Your task to perform on an android device: change notification settings in the gmail app Image 0: 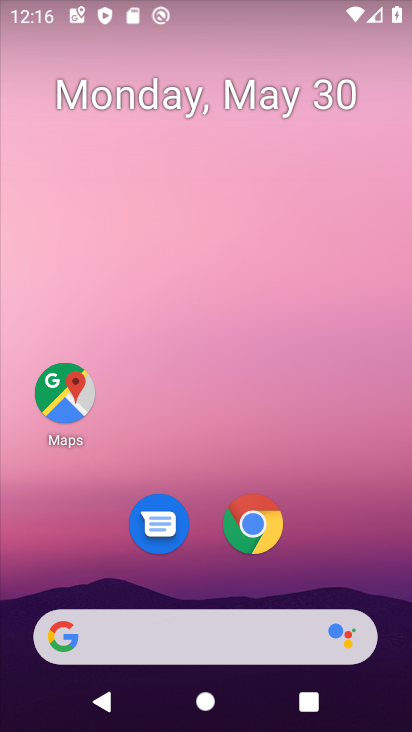
Step 0: drag from (264, 436) to (273, 0)
Your task to perform on an android device: change notification settings in the gmail app Image 1: 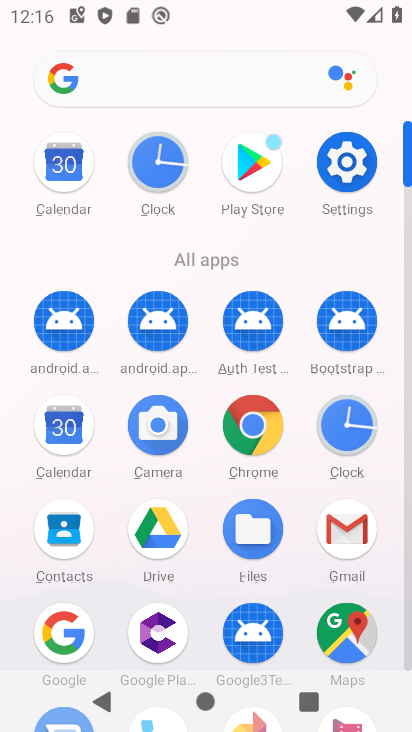
Step 1: click (359, 159)
Your task to perform on an android device: change notification settings in the gmail app Image 2: 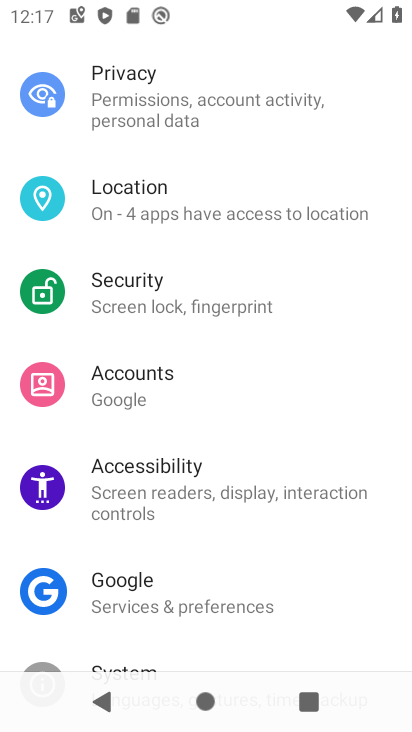
Step 2: drag from (194, 225) to (174, 651)
Your task to perform on an android device: change notification settings in the gmail app Image 3: 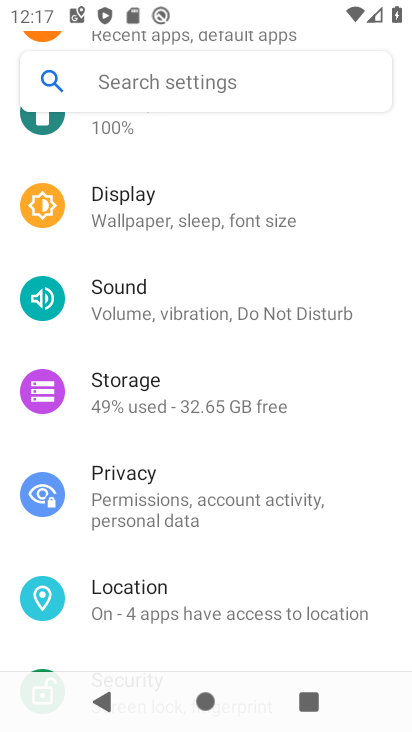
Step 3: drag from (193, 216) to (172, 612)
Your task to perform on an android device: change notification settings in the gmail app Image 4: 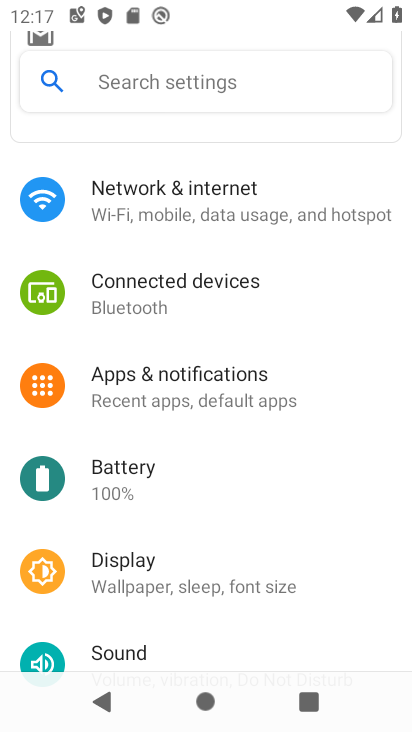
Step 4: click (192, 392)
Your task to perform on an android device: change notification settings in the gmail app Image 5: 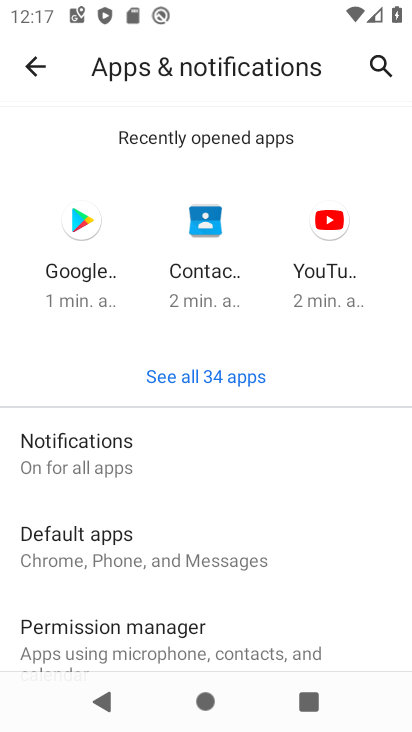
Step 5: click (213, 368)
Your task to perform on an android device: change notification settings in the gmail app Image 6: 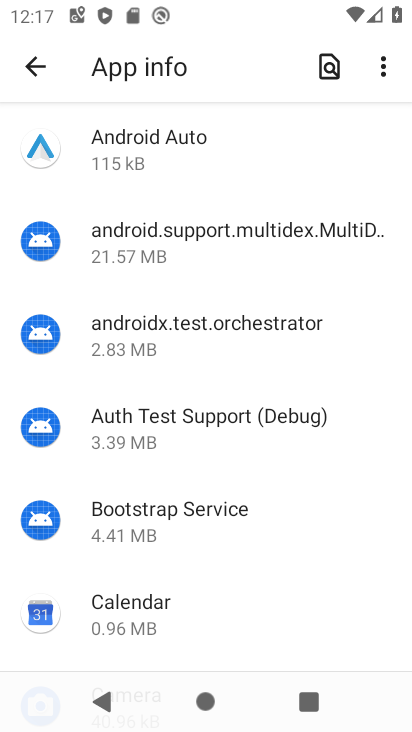
Step 6: drag from (203, 599) to (249, 11)
Your task to perform on an android device: change notification settings in the gmail app Image 7: 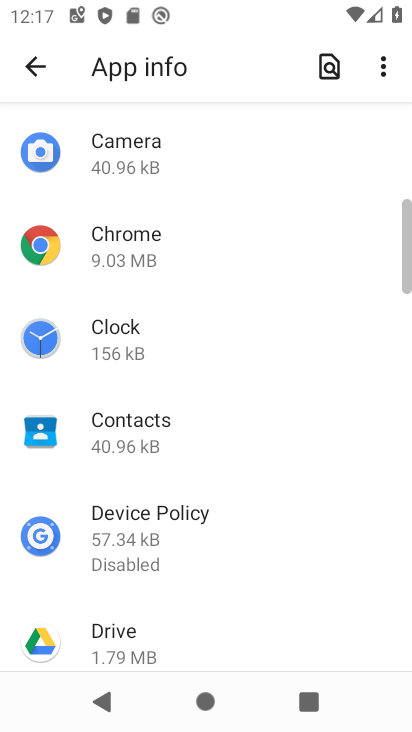
Step 7: drag from (237, 600) to (280, 46)
Your task to perform on an android device: change notification settings in the gmail app Image 8: 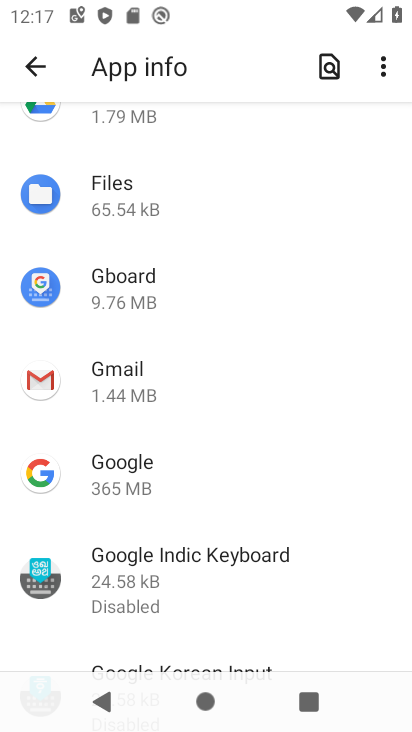
Step 8: click (128, 376)
Your task to perform on an android device: change notification settings in the gmail app Image 9: 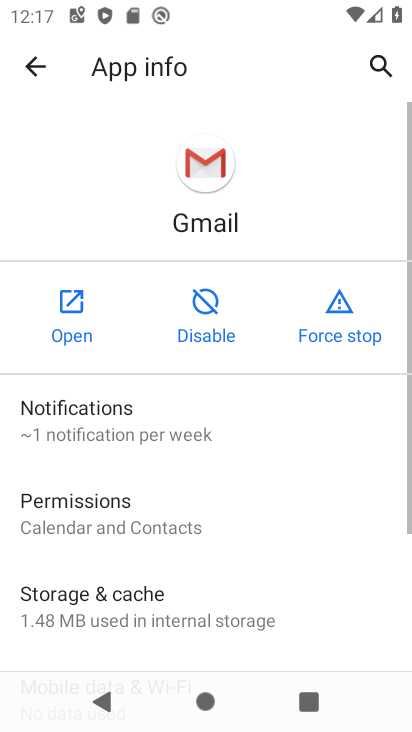
Step 9: click (121, 408)
Your task to perform on an android device: change notification settings in the gmail app Image 10: 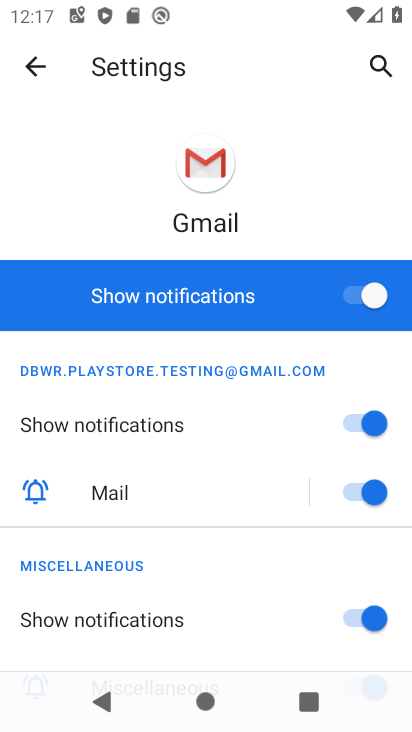
Step 10: click (355, 289)
Your task to perform on an android device: change notification settings in the gmail app Image 11: 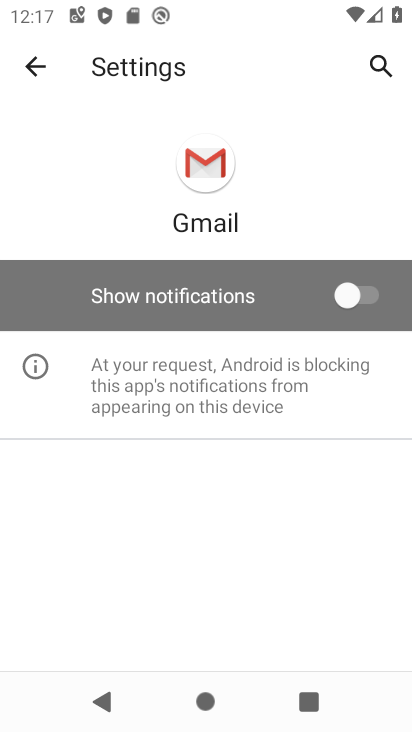
Step 11: task complete